Your task to perform on an android device: delete browsing data in the chrome app Image 0: 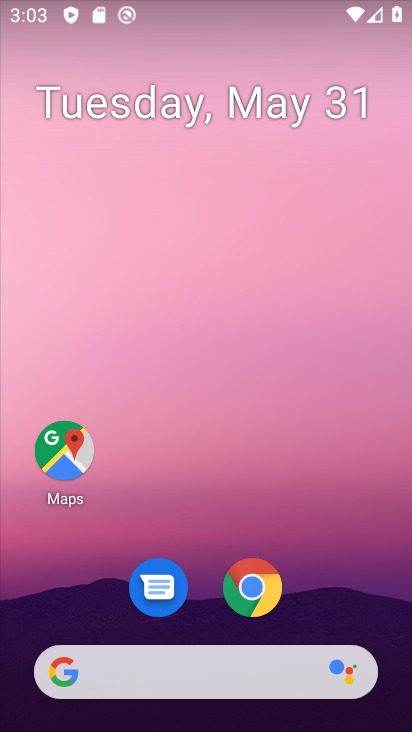
Step 0: click (245, 584)
Your task to perform on an android device: delete browsing data in the chrome app Image 1: 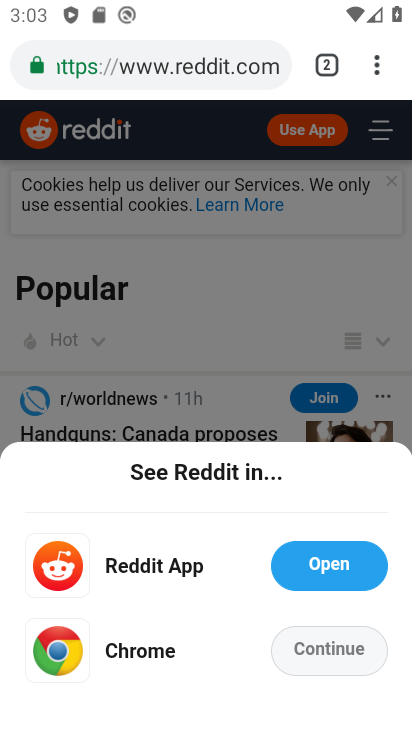
Step 1: click (382, 58)
Your task to perform on an android device: delete browsing data in the chrome app Image 2: 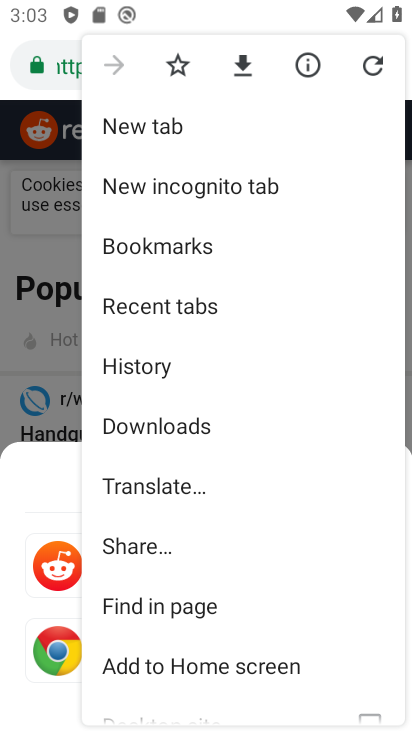
Step 2: click (147, 368)
Your task to perform on an android device: delete browsing data in the chrome app Image 3: 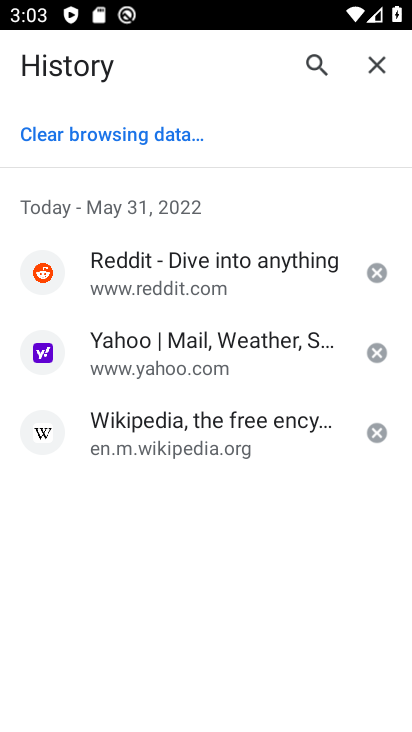
Step 3: click (122, 138)
Your task to perform on an android device: delete browsing data in the chrome app Image 4: 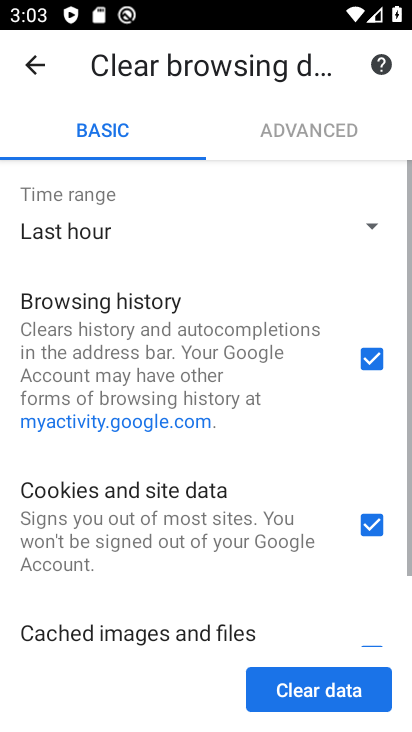
Step 4: click (329, 682)
Your task to perform on an android device: delete browsing data in the chrome app Image 5: 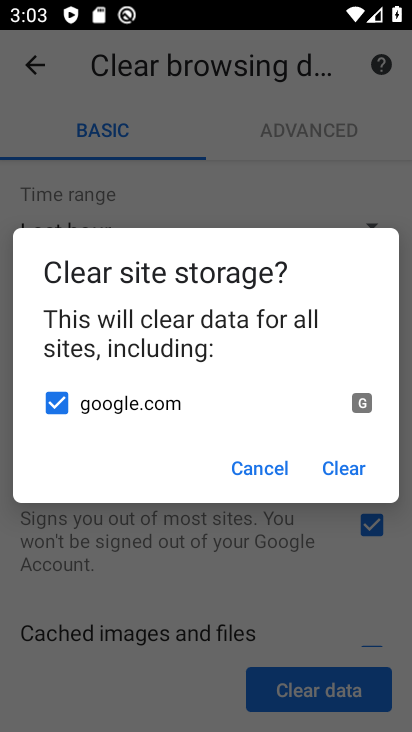
Step 5: click (356, 468)
Your task to perform on an android device: delete browsing data in the chrome app Image 6: 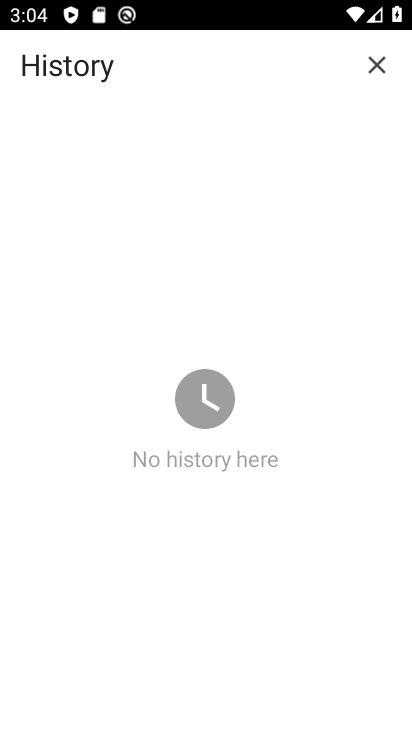
Step 6: task complete